Your task to perform on an android device: open app "McDonald's" Image 0: 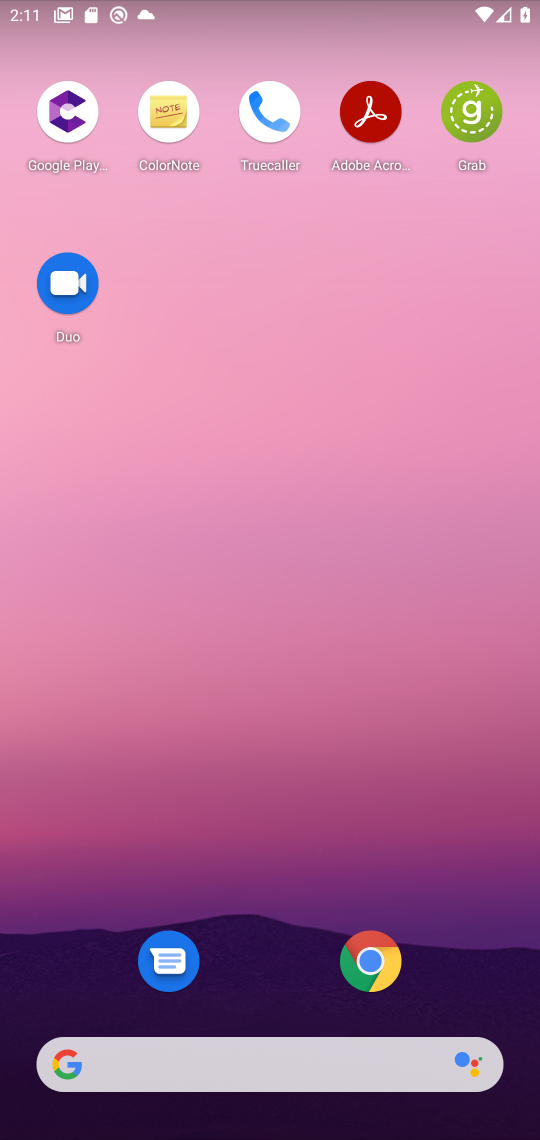
Step 0: drag from (285, 911) to (307, 50)
Your task to perform on an android device: open app "McDonald's" Image 1: 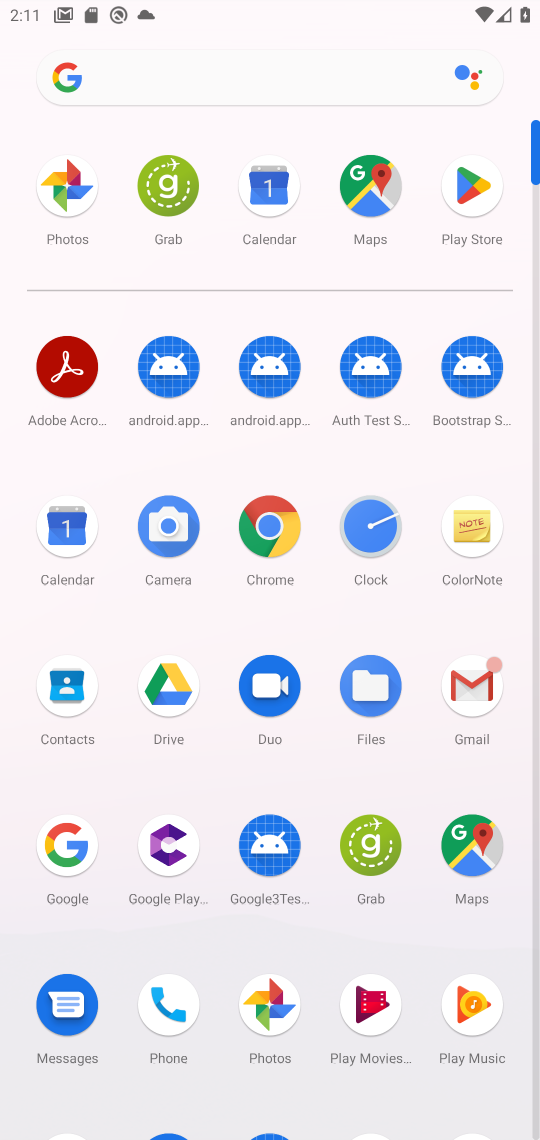
Step 1: click (451, 183)
Your task to perform on an android device: open app "McDonald's" Image 2: 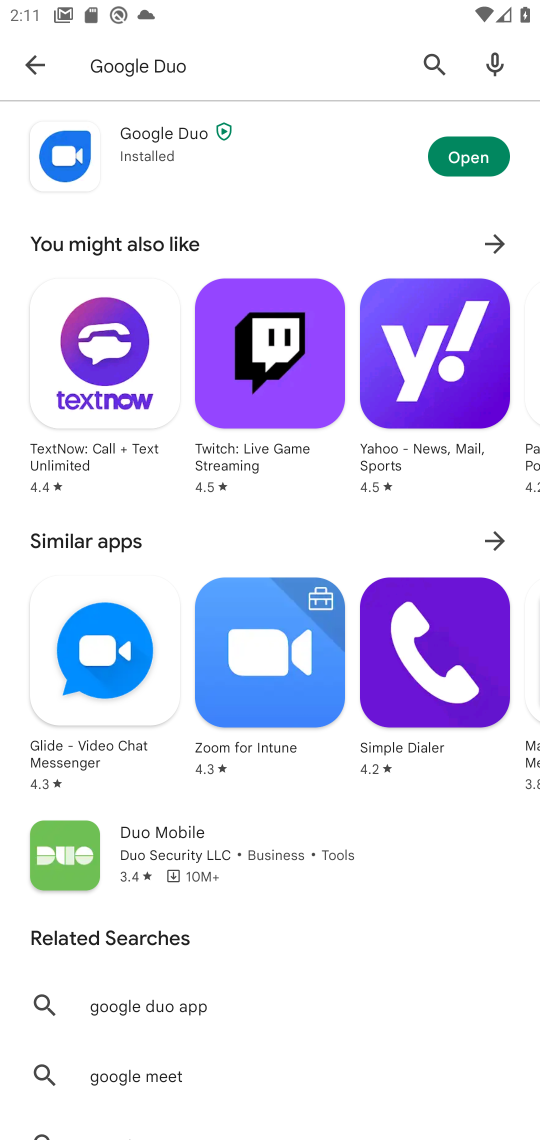
Step 2: click (232, 74)
Your task to perform on an android device: open app "McDonald's" Image 3: 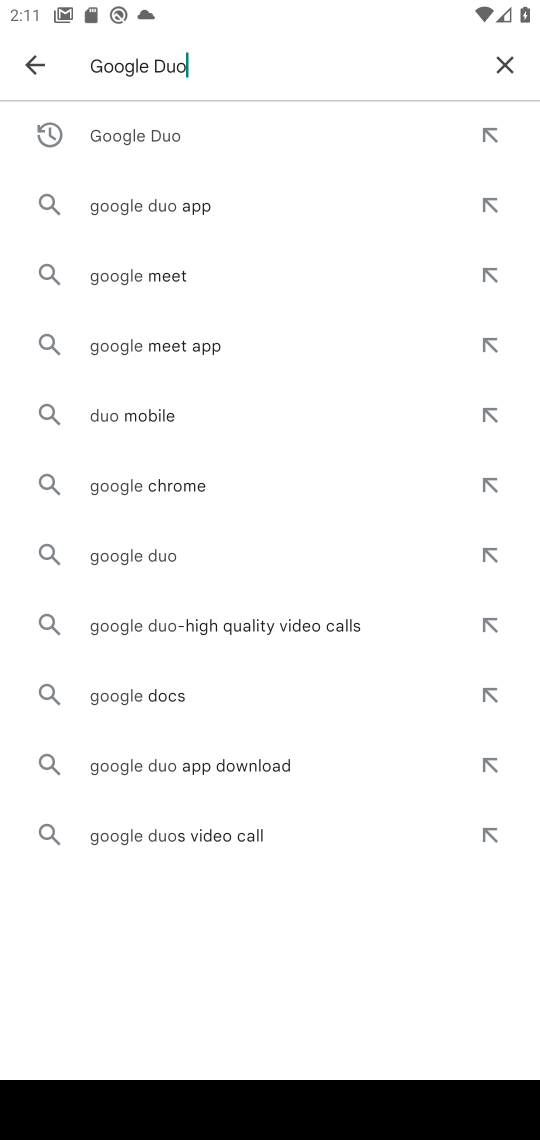
Step 3: click (508, 75)
Your task to perform on an android device: open app "McDonald's" Image 4: 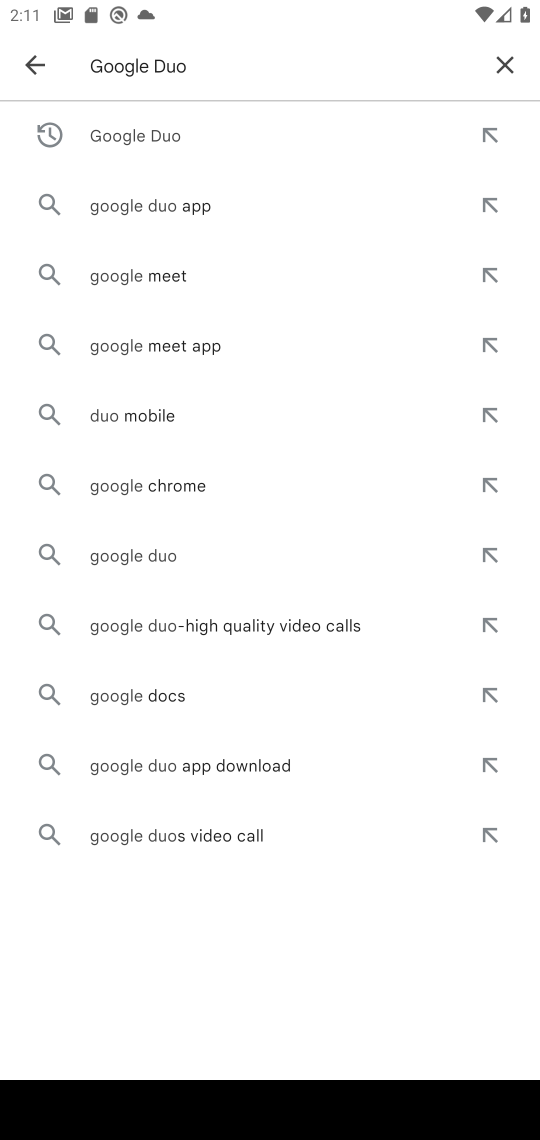
Step 4: click (506, 62)
Your task to perform on an android device: open app "McDonald's" Image 5: 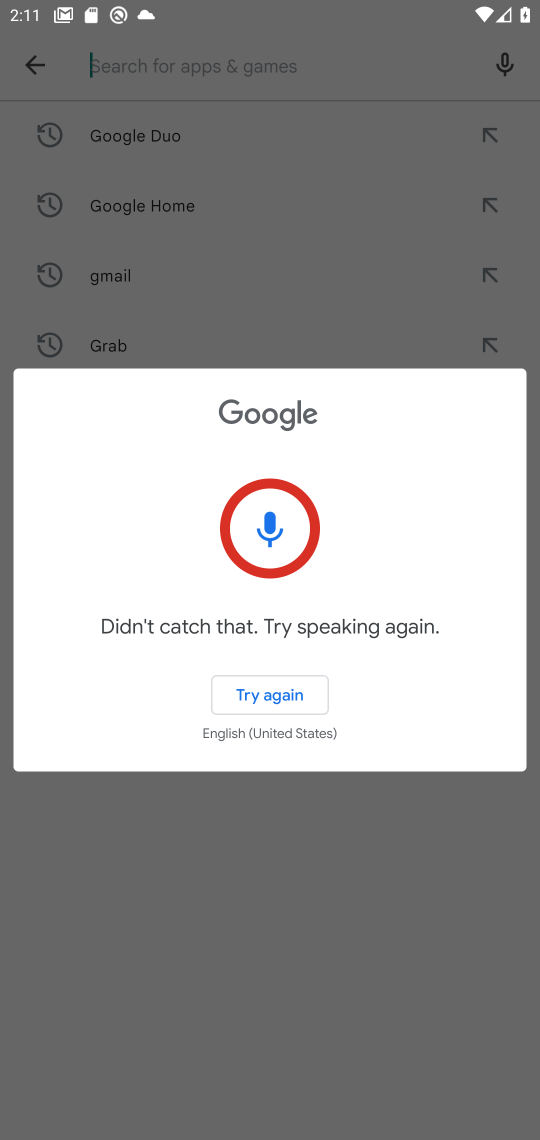
Step 5: type "M"
Your task to perform on an android device: open app "McDonald's" Image 6: 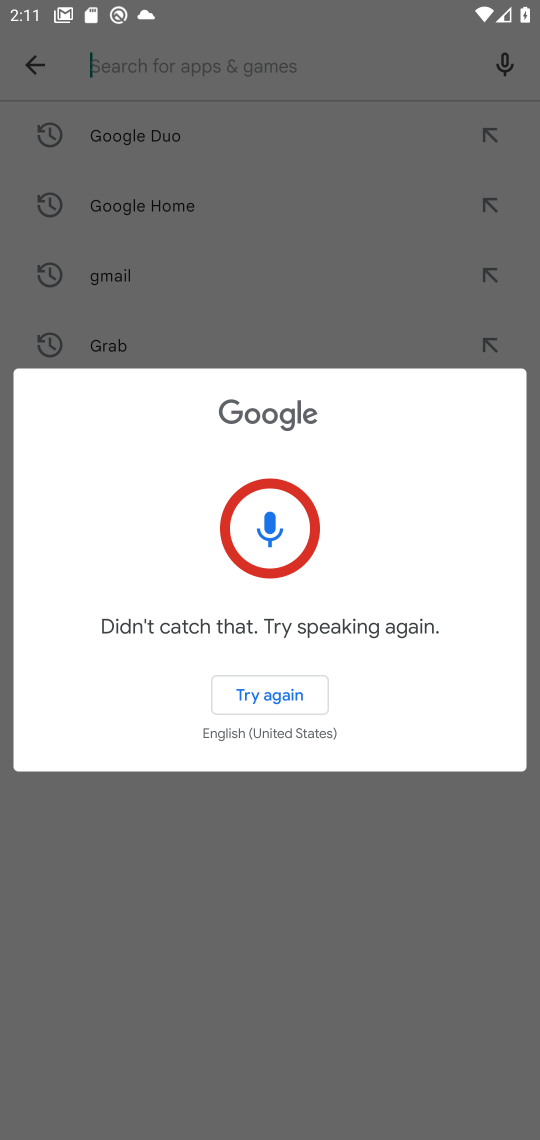
Step 6: click (483, 980)
Your task to perform on an android device: open app "McDonald's" Image 7: 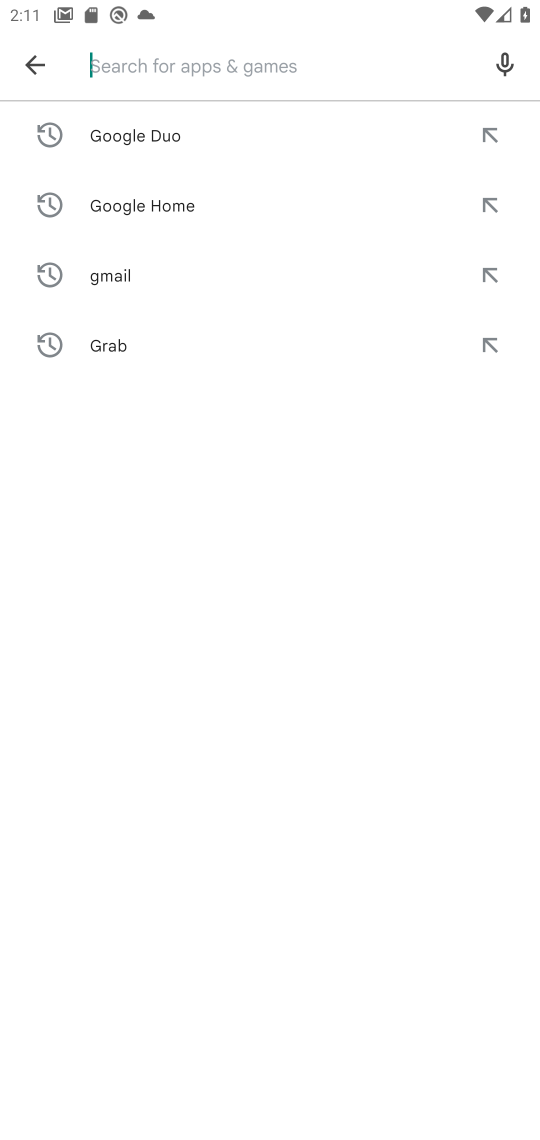
Step 7: type "McDonad's"
Your task to perform on an android device: open app "McDonald's" Image 8: 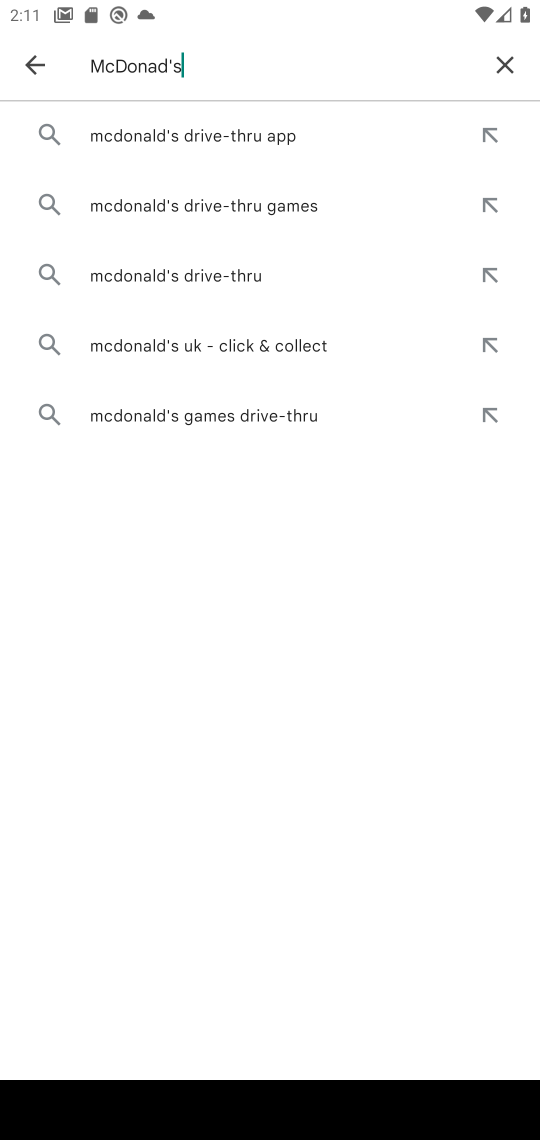
Step 8: press enter
Your task to perform on an android device: open app "McDonald's" Image 9: 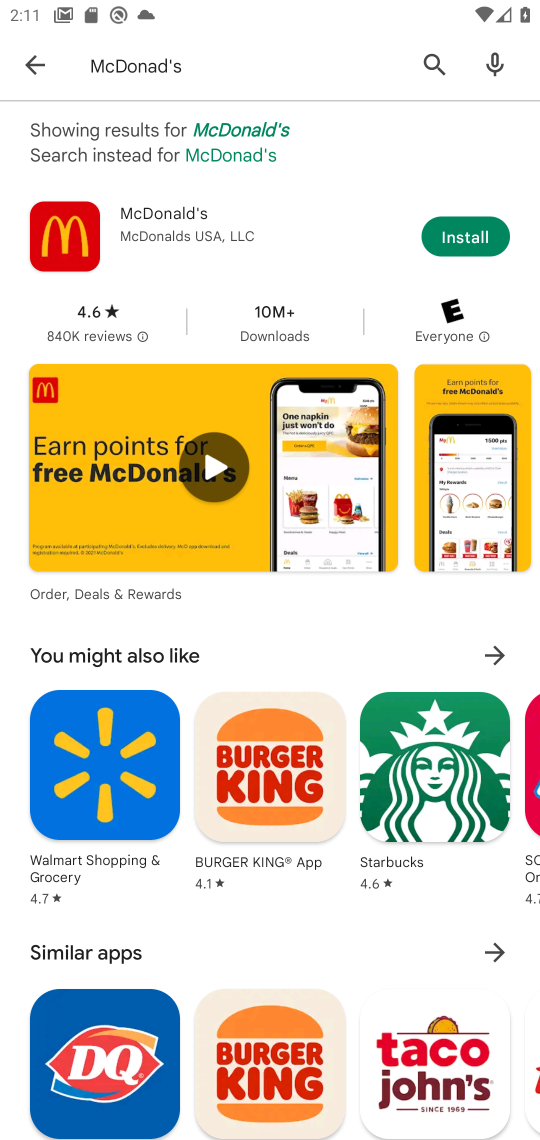
Step 9: click (222, 207)
Your task to perform on an android device: open app "McDonald's" Image 10: 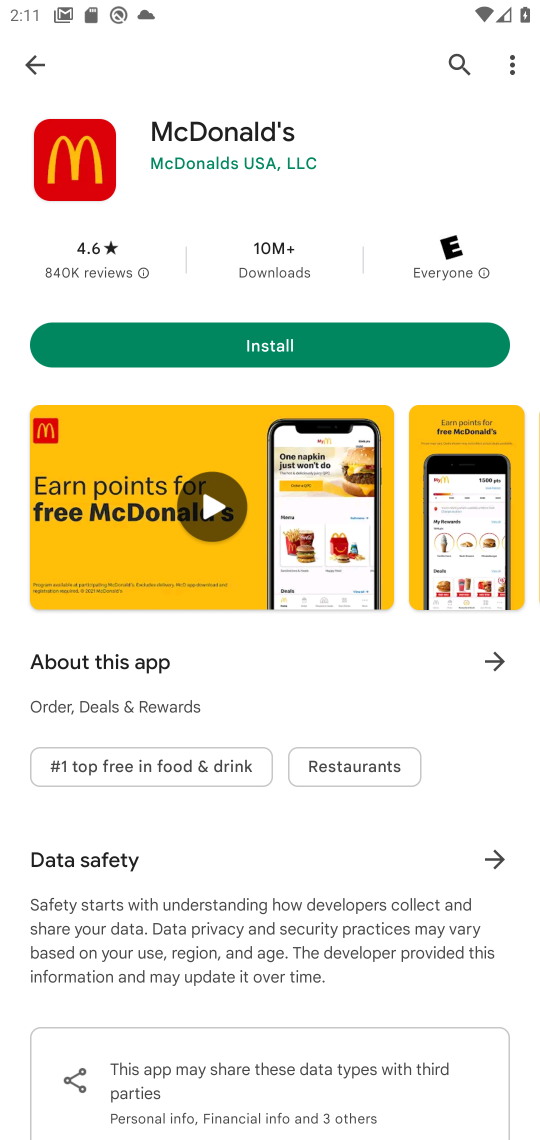
Step 10: task complete